Your task to perform on an android device: Show me recent news Image 0: 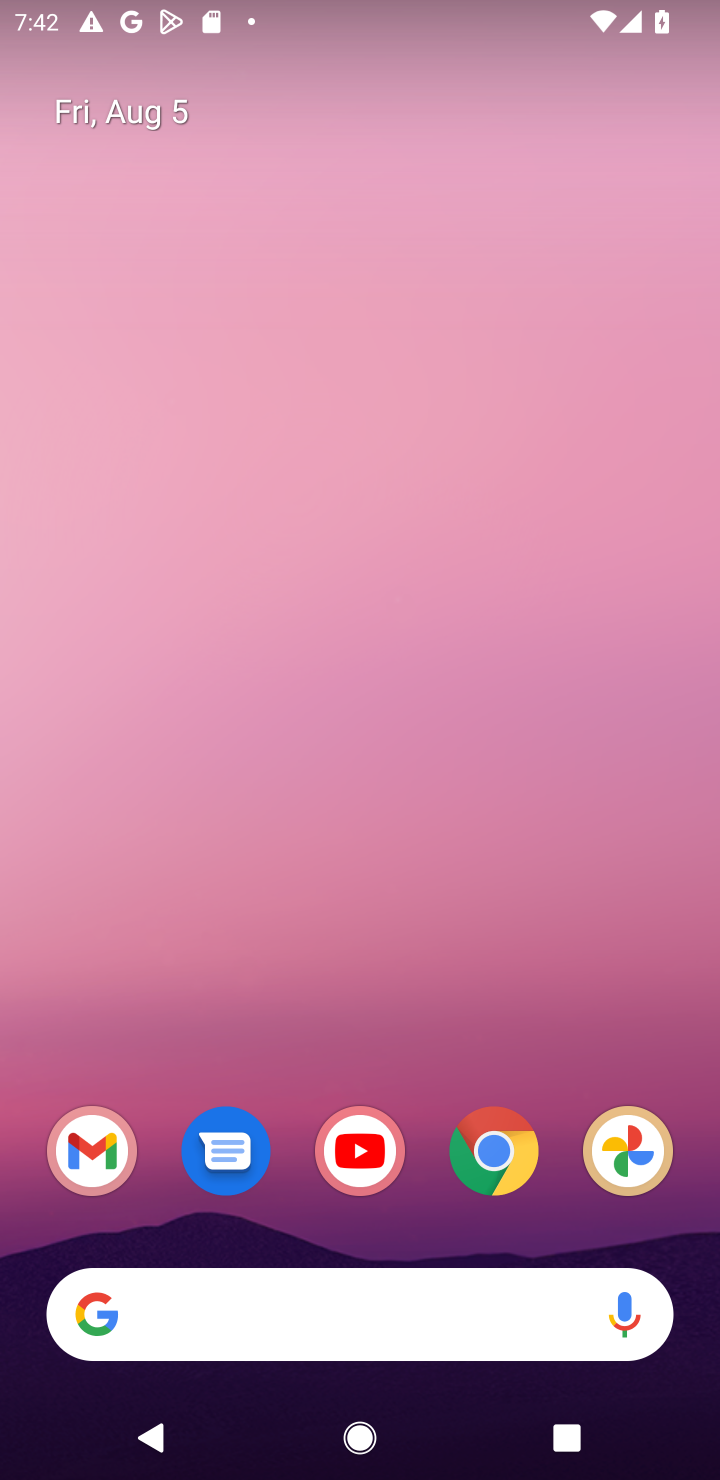
Step 0: drag from (271, 783) to (162, 96)
Your task to perform on an android device: Show me recent news Image 1: 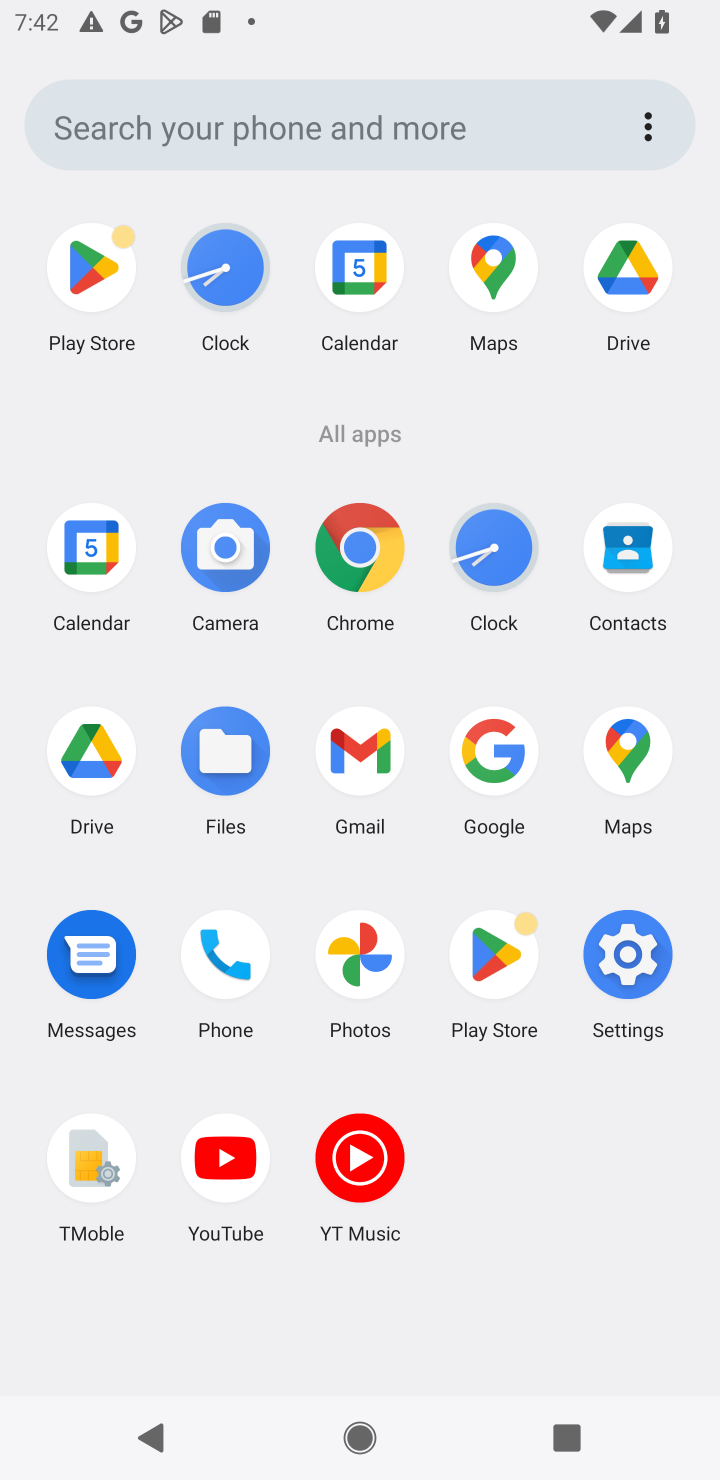
Step 1: click (336, 116)
Your task to perform on an android device: Show me recent news Image 2: 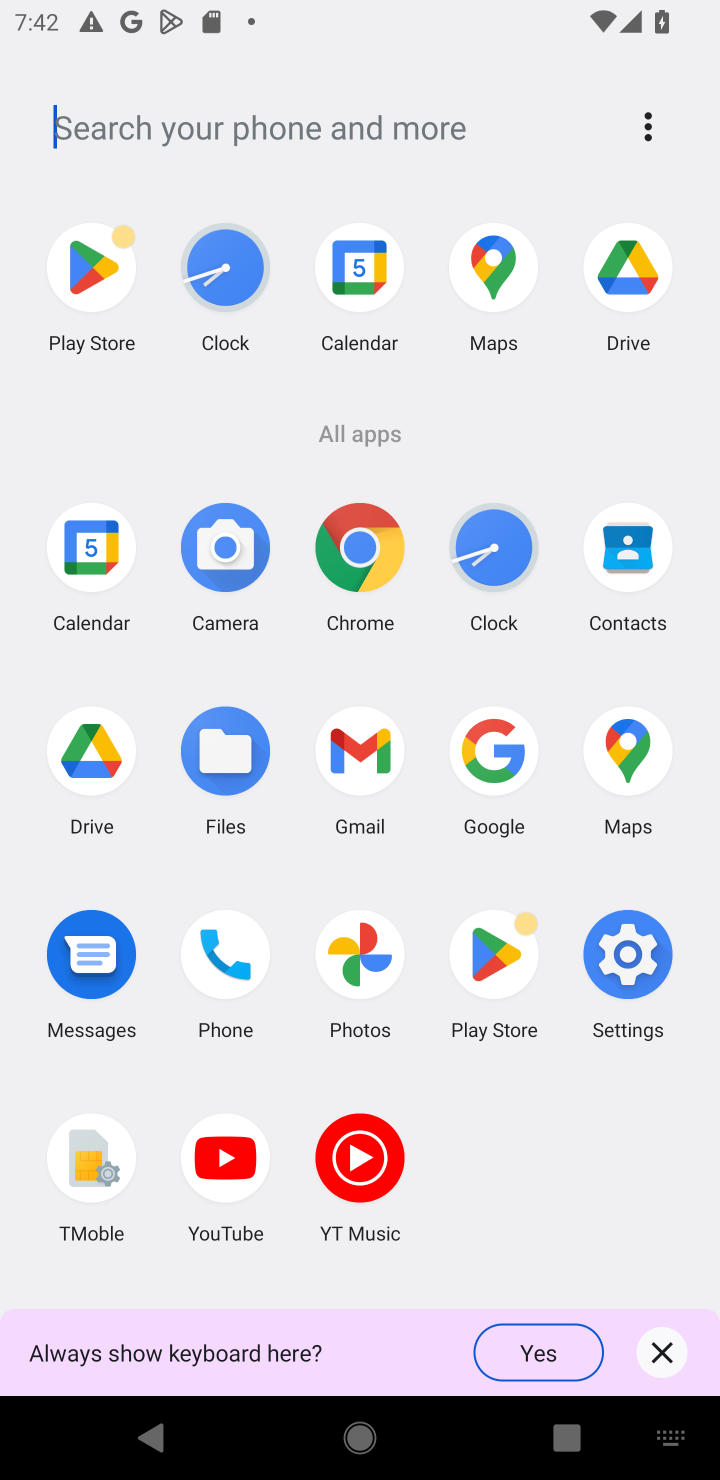
Step 2: type "recent news"
Your task to perform on an android device: Show me recent news Image 3: 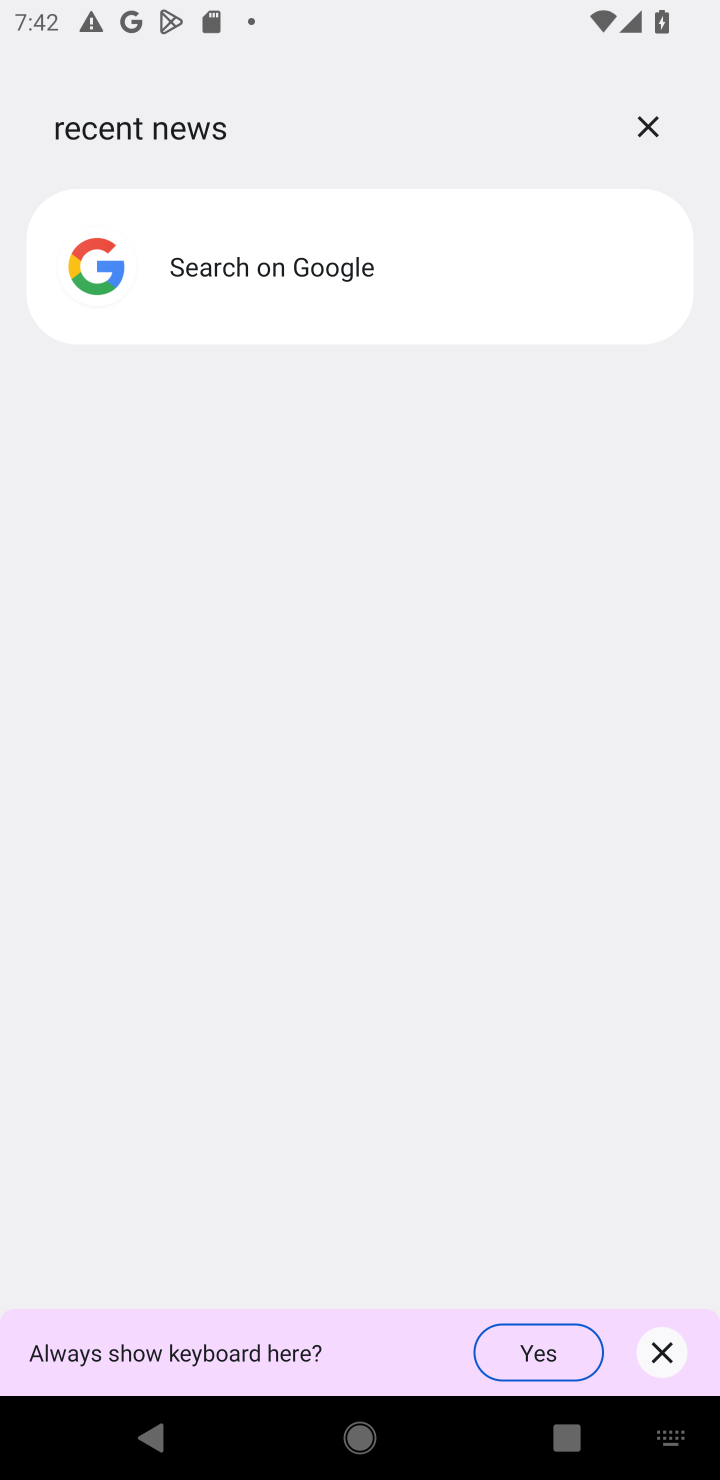
Step 3: click (126, 325)
Your task to perform on an android device: Show me recent news Image 4: 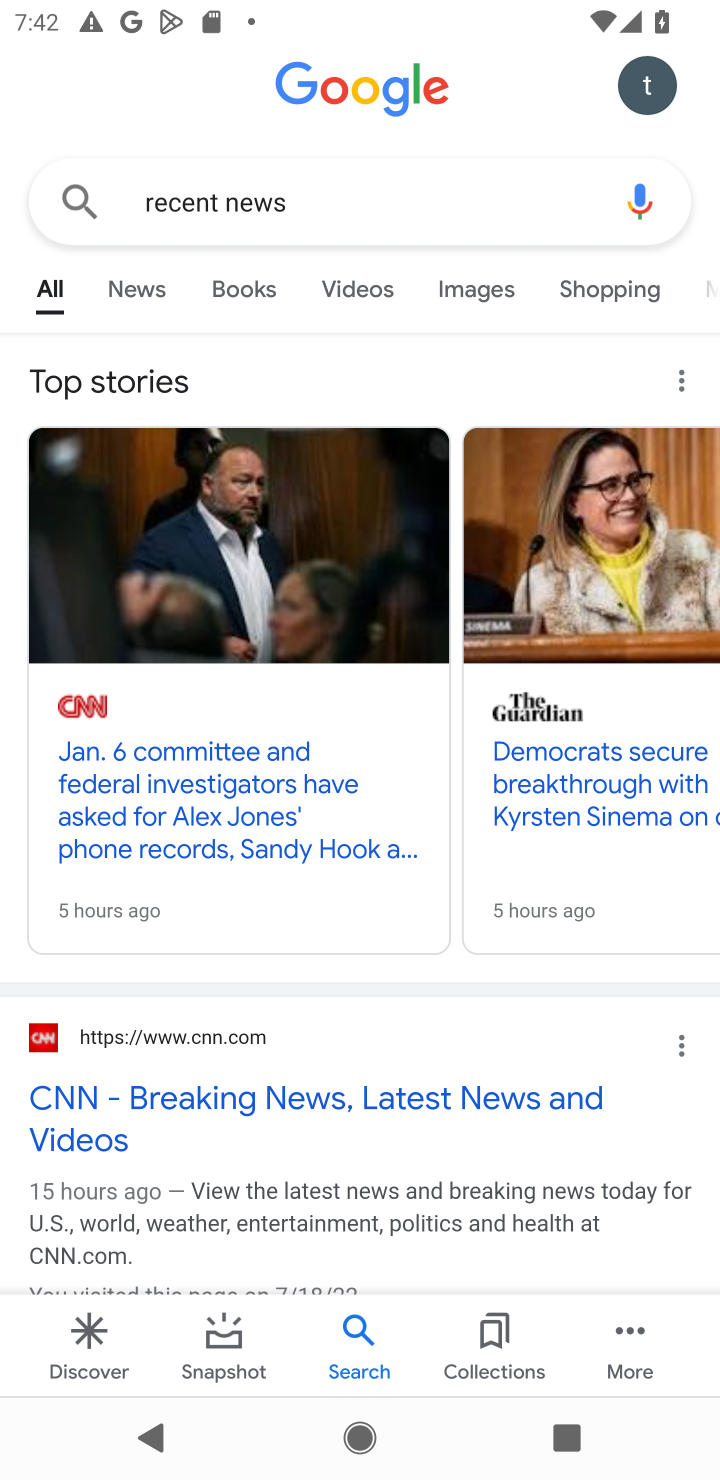
Step 4: task complete